Your task to perform on an android device: Go to internet settings Image 0: 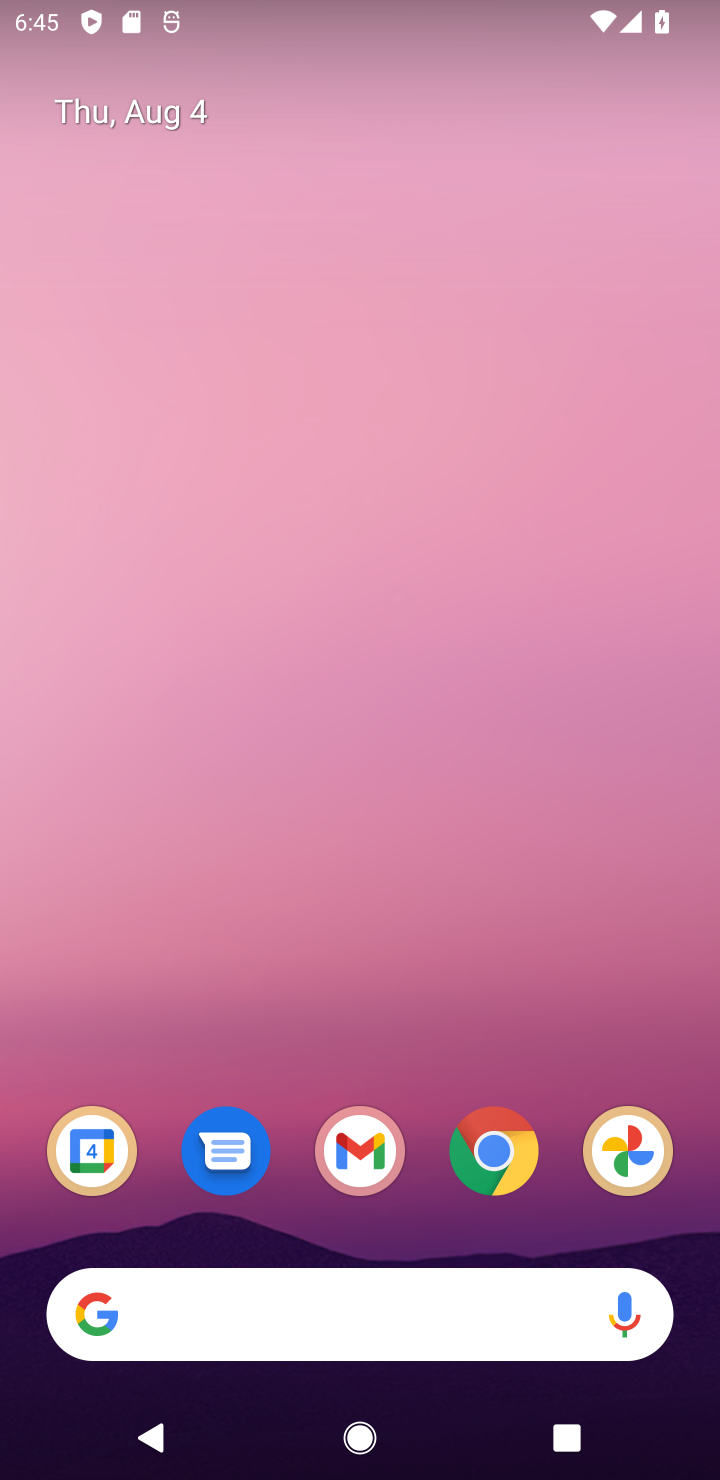
Step 0: drag from (298, 759) to (310, 5)
Your task to perform on an android device: Go to internet settings Image 1: 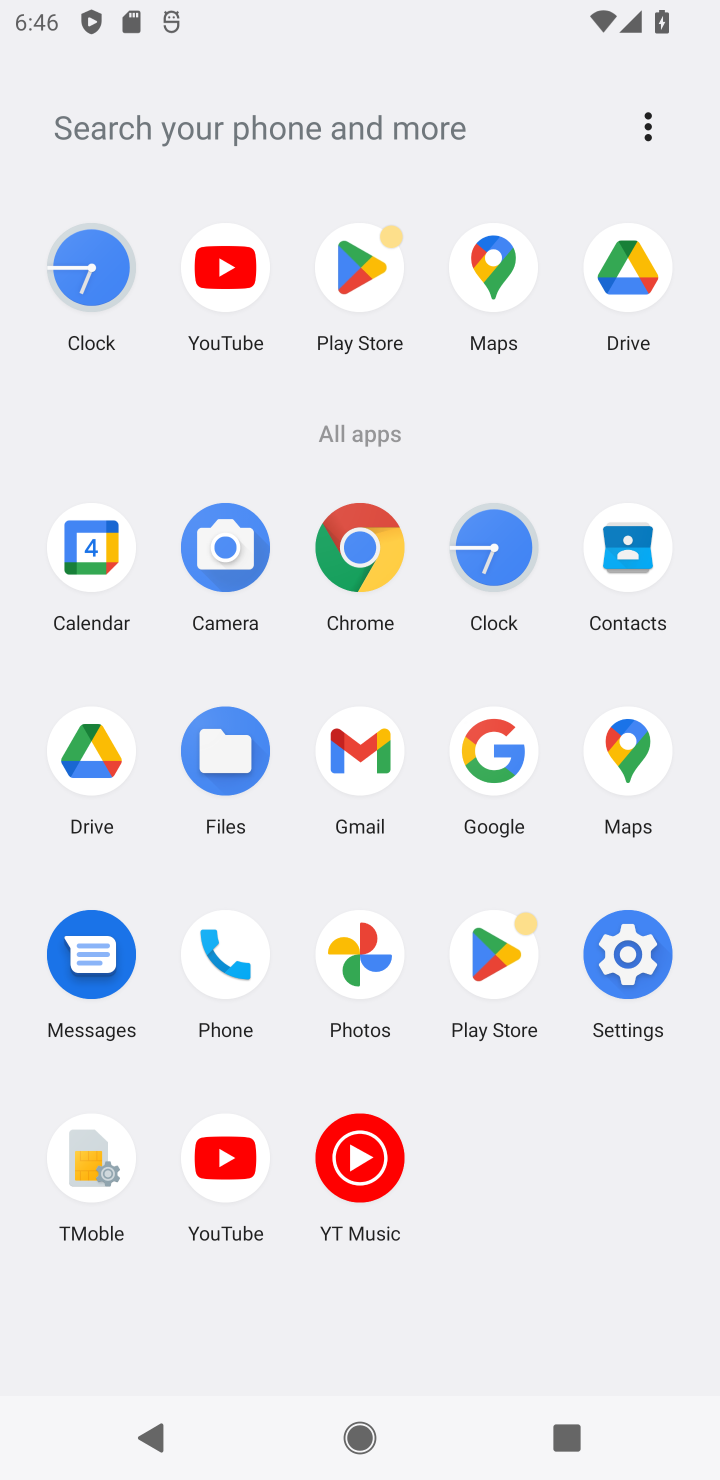
Step 1: click (640, 939)
Your task to perform on an android device: Go to internet settings Image 2: 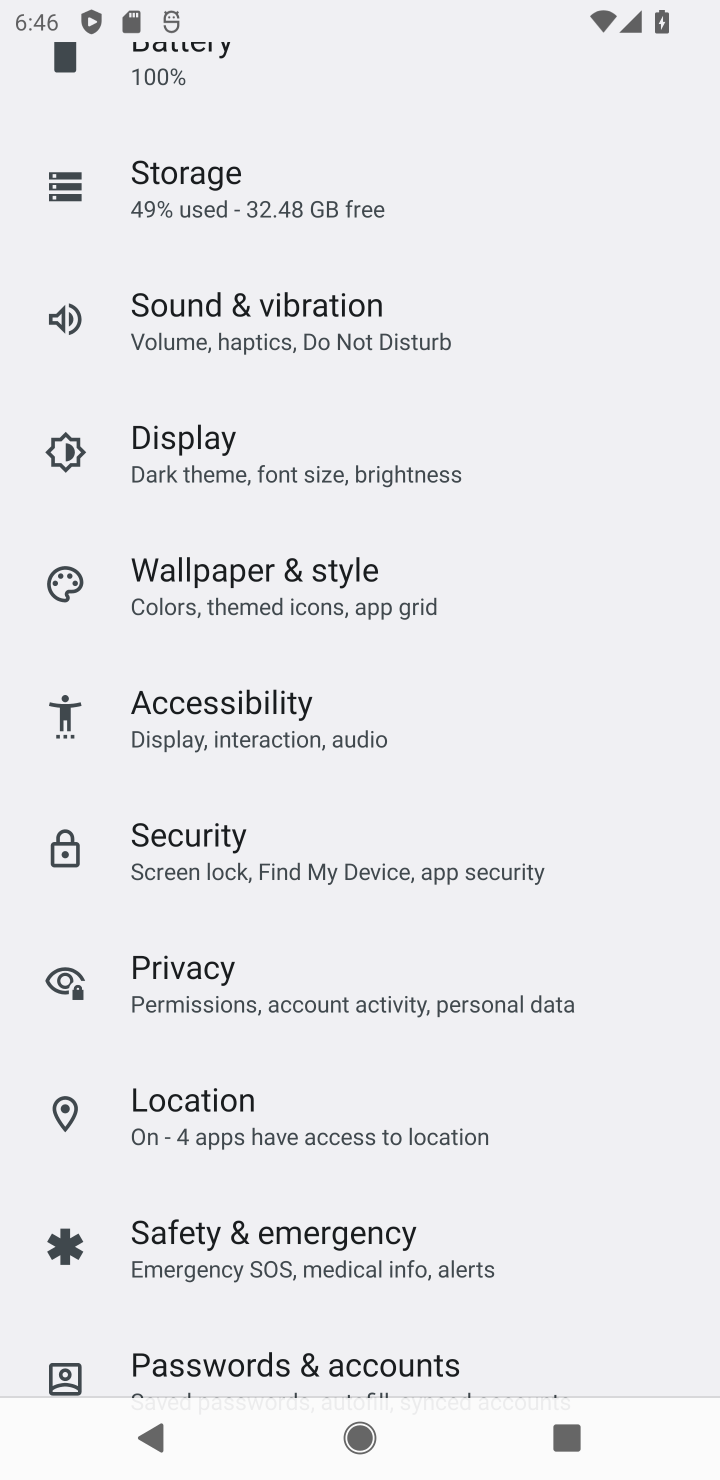
Step 2: drag from (244, 273) to (222, 1292)
Your task to perform on an android device: Go to internet settings Image 3: 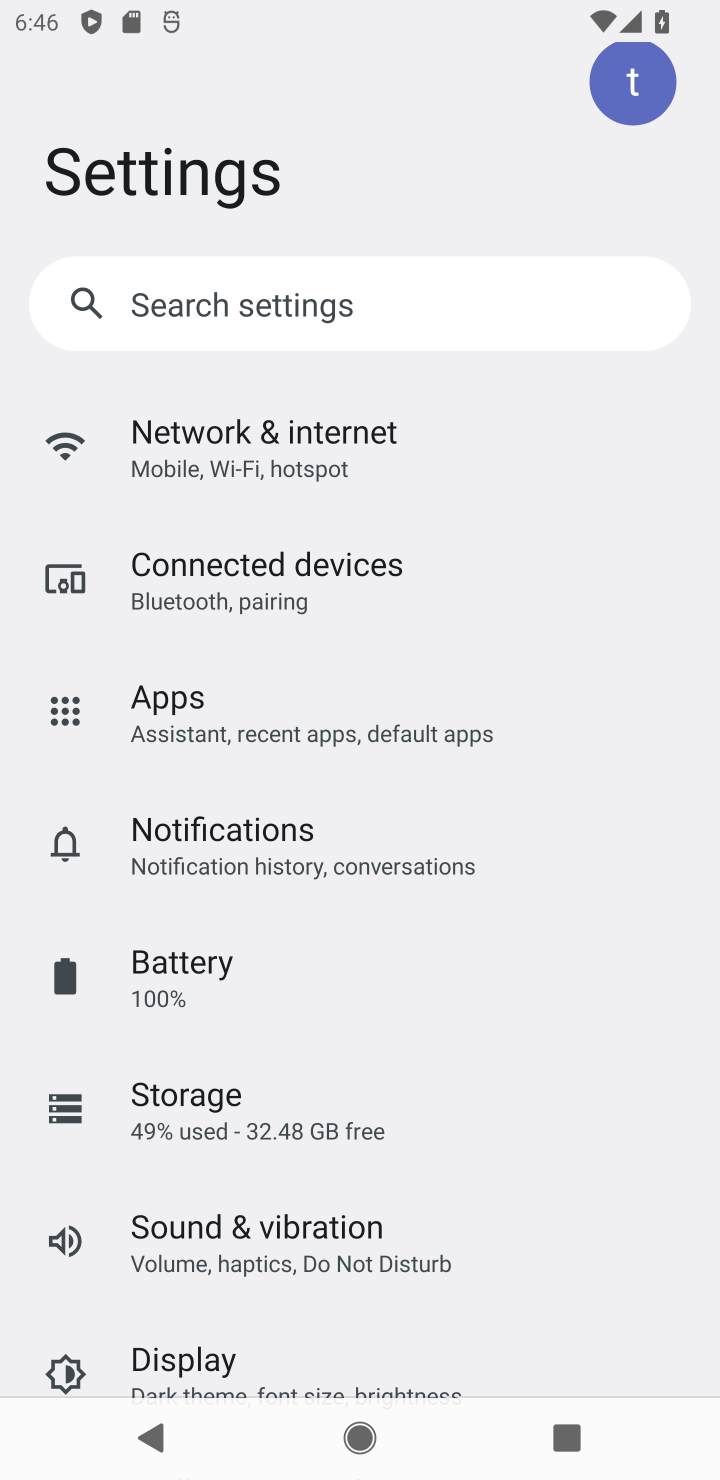
Step 3: click (278, 449)
Your task to perform on an android device: Go to internet settings Image 4: 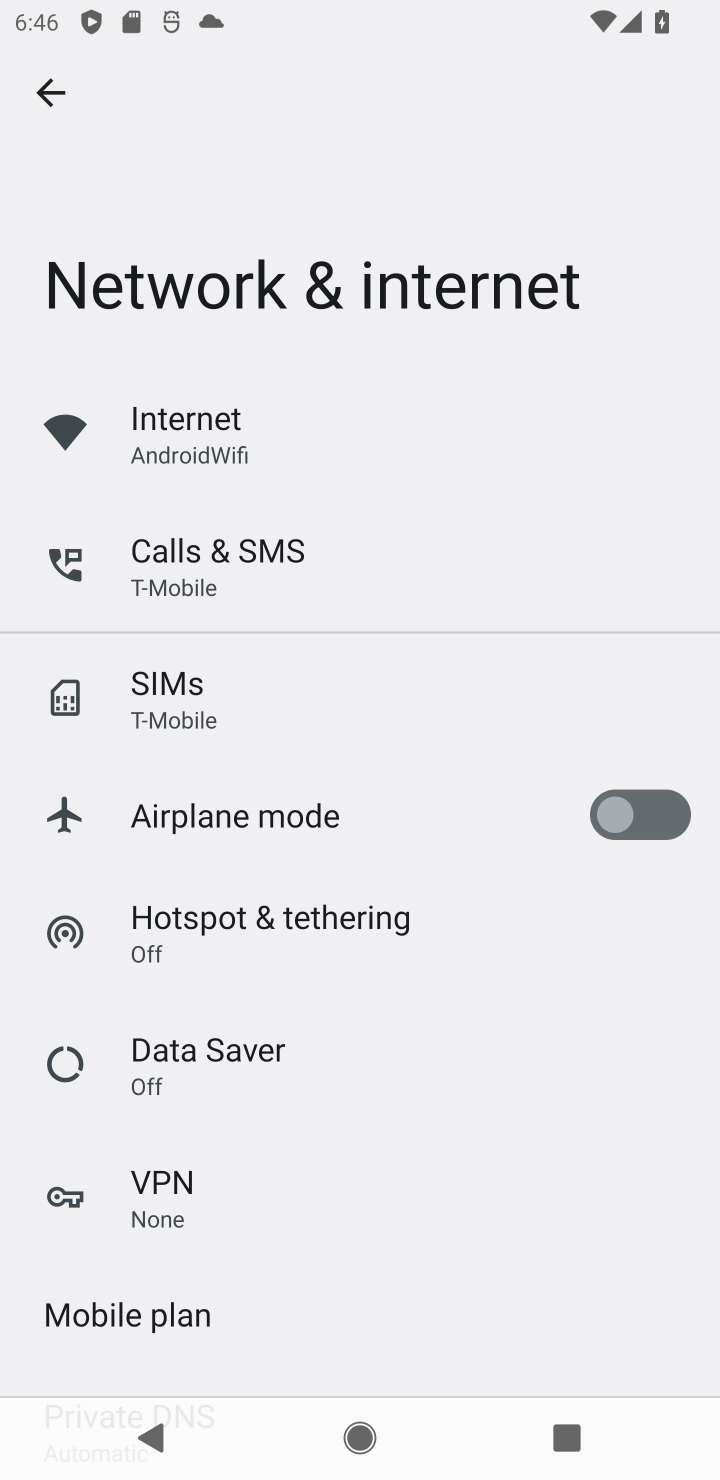
Step 4: click (205, 464)
Your task to perform on an android device: Go to internet settings Image 5: 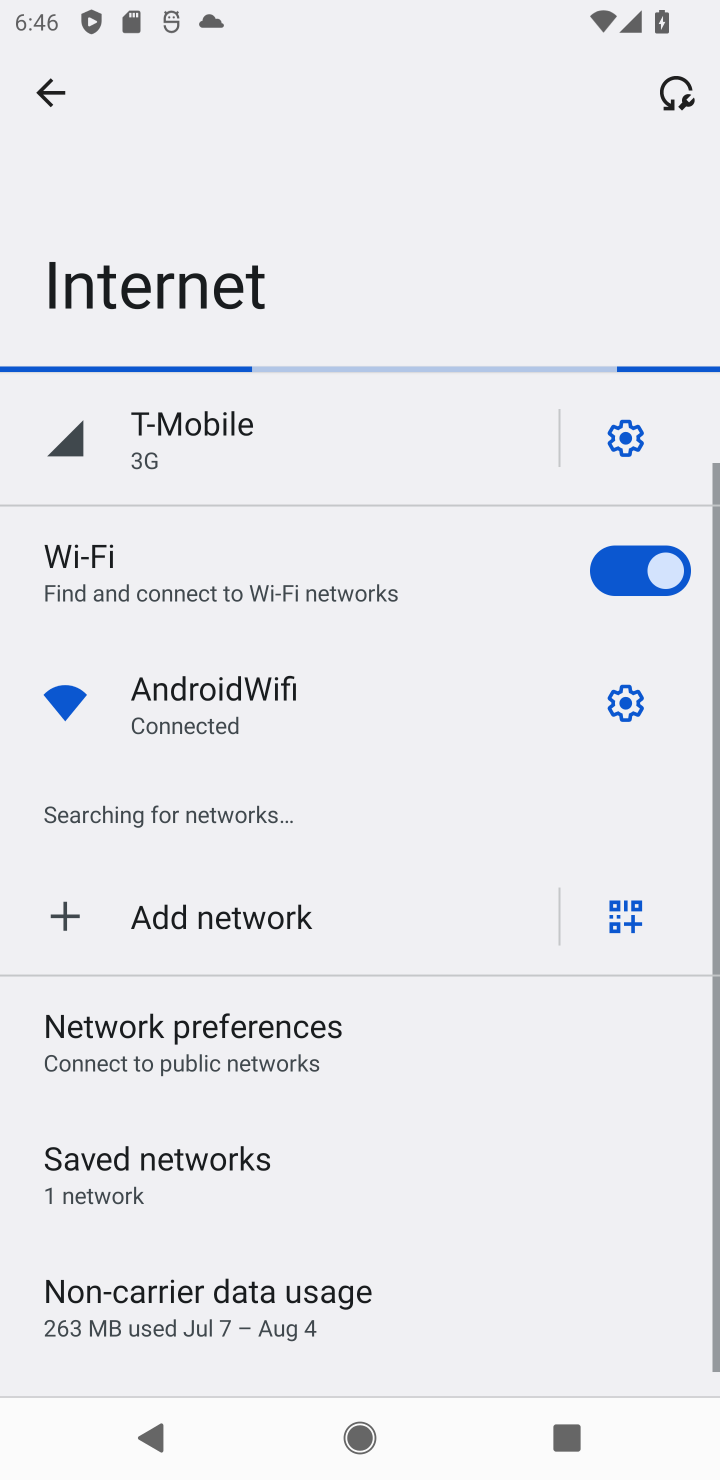
Step 5: task complete